Your task to perform on an android device: Show me popular videos on Youtube Image 0: 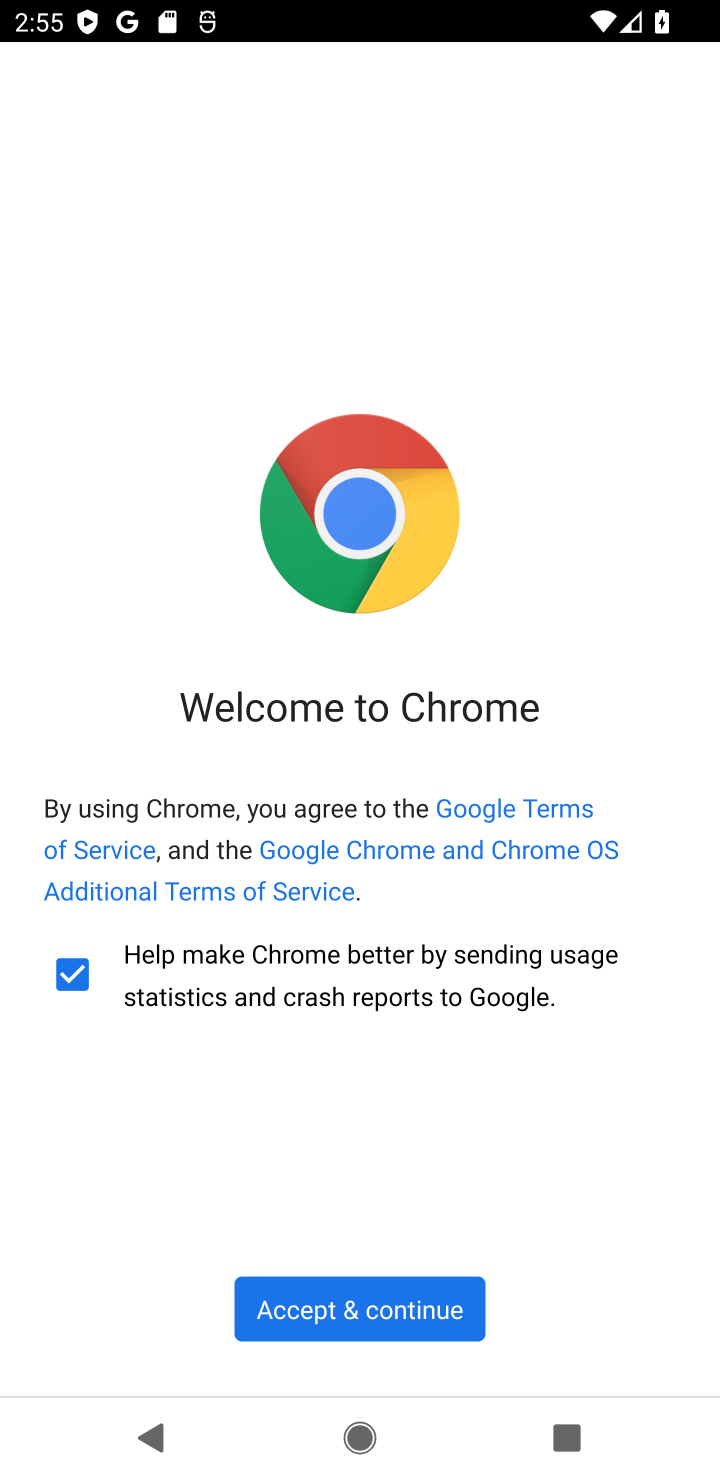
Step 0: press home button
Your task to perform on an android device: Show me popular videos on Youtube Image 1: 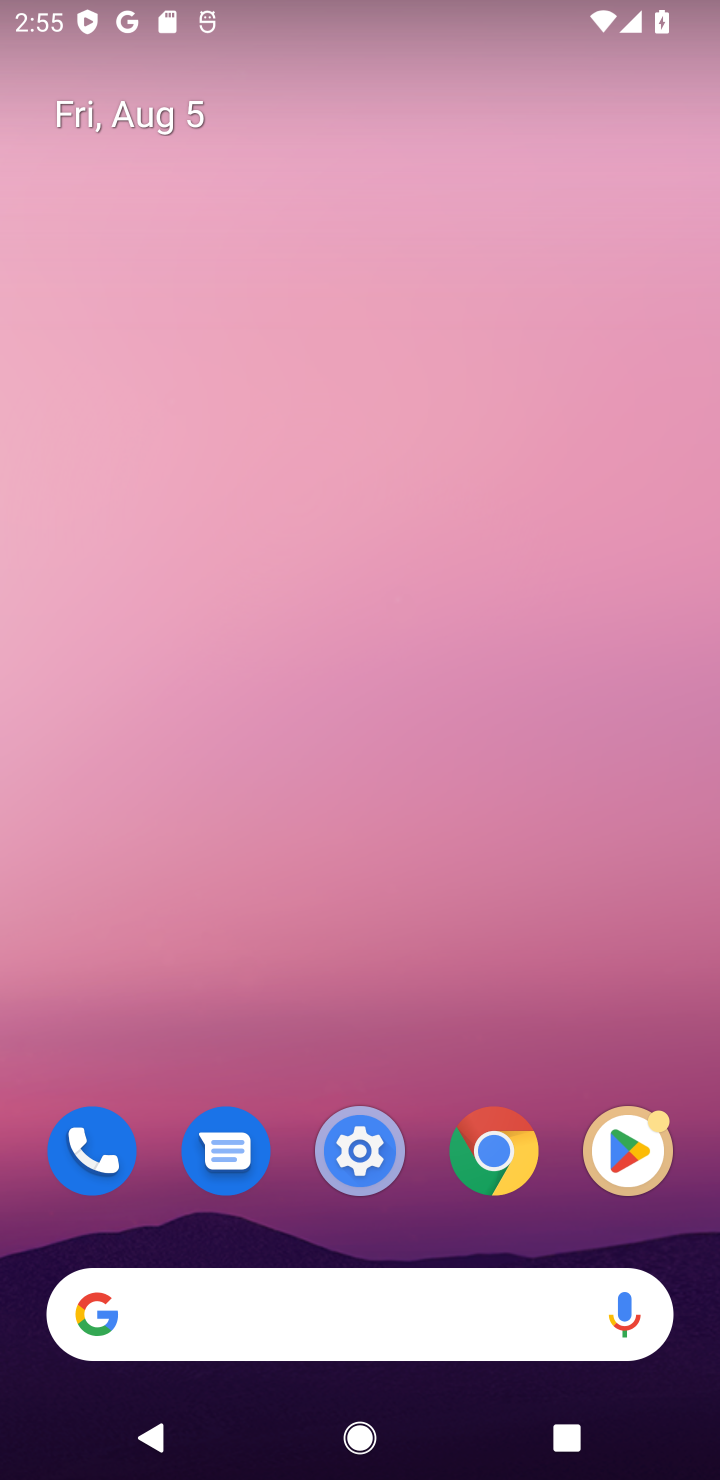
Step 1: drag from (388, 1049) to (250, 107)
Your task to perform on an android device: Show me popular videos on Youtube Image 2: 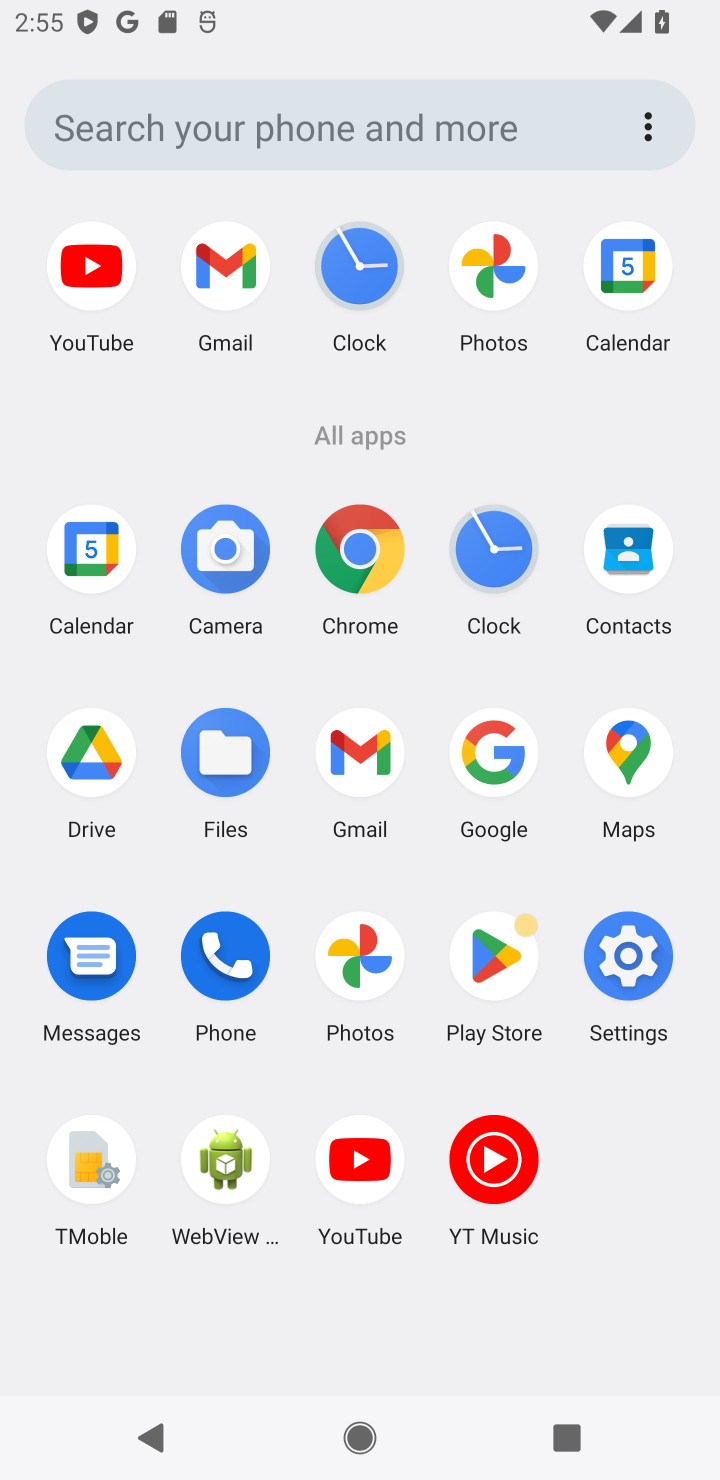
Step 2: click (329, 1178)
Your task to perform on an android device: Show me popular videos on Youtube Image 3: 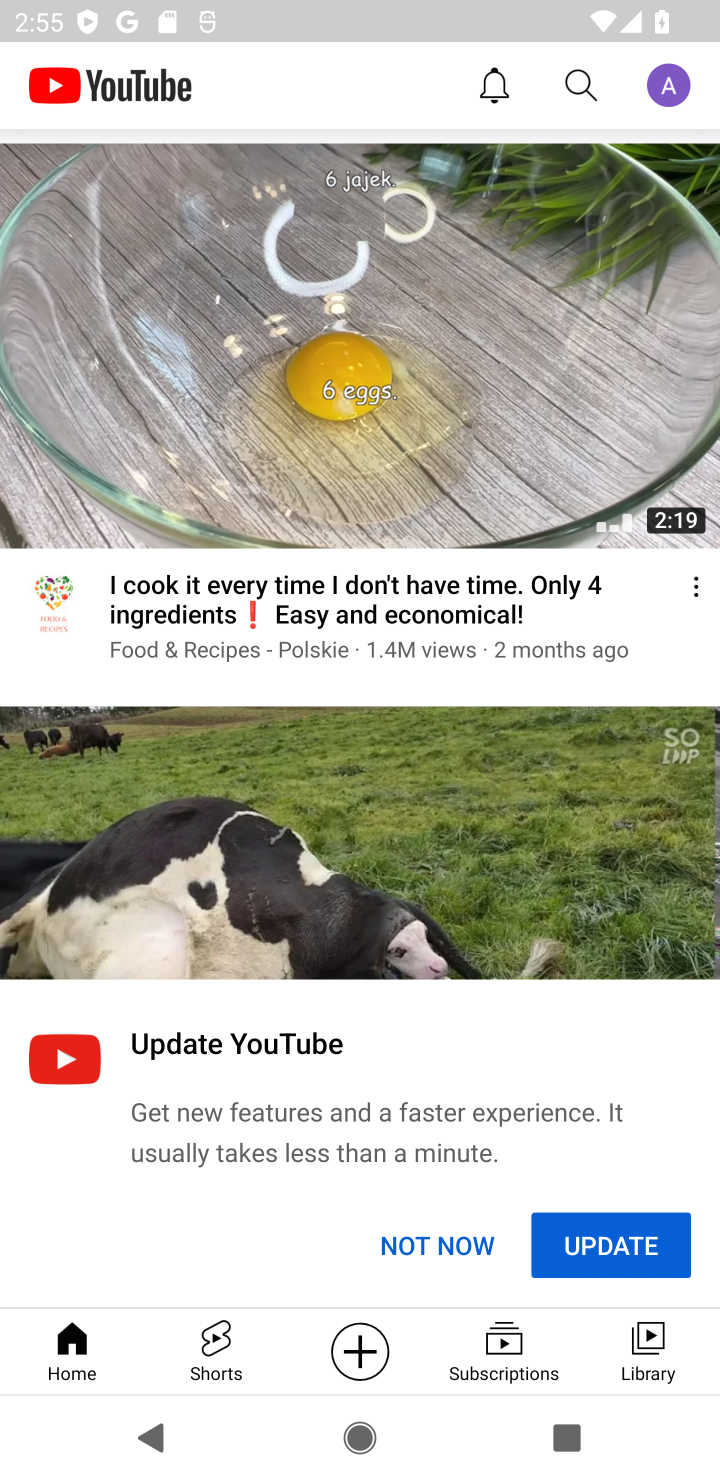
Step 3: drag from (141, 482) to (217, 1341)
Your task to perform on an android device: Show me popular videos on Youtube Image 4: 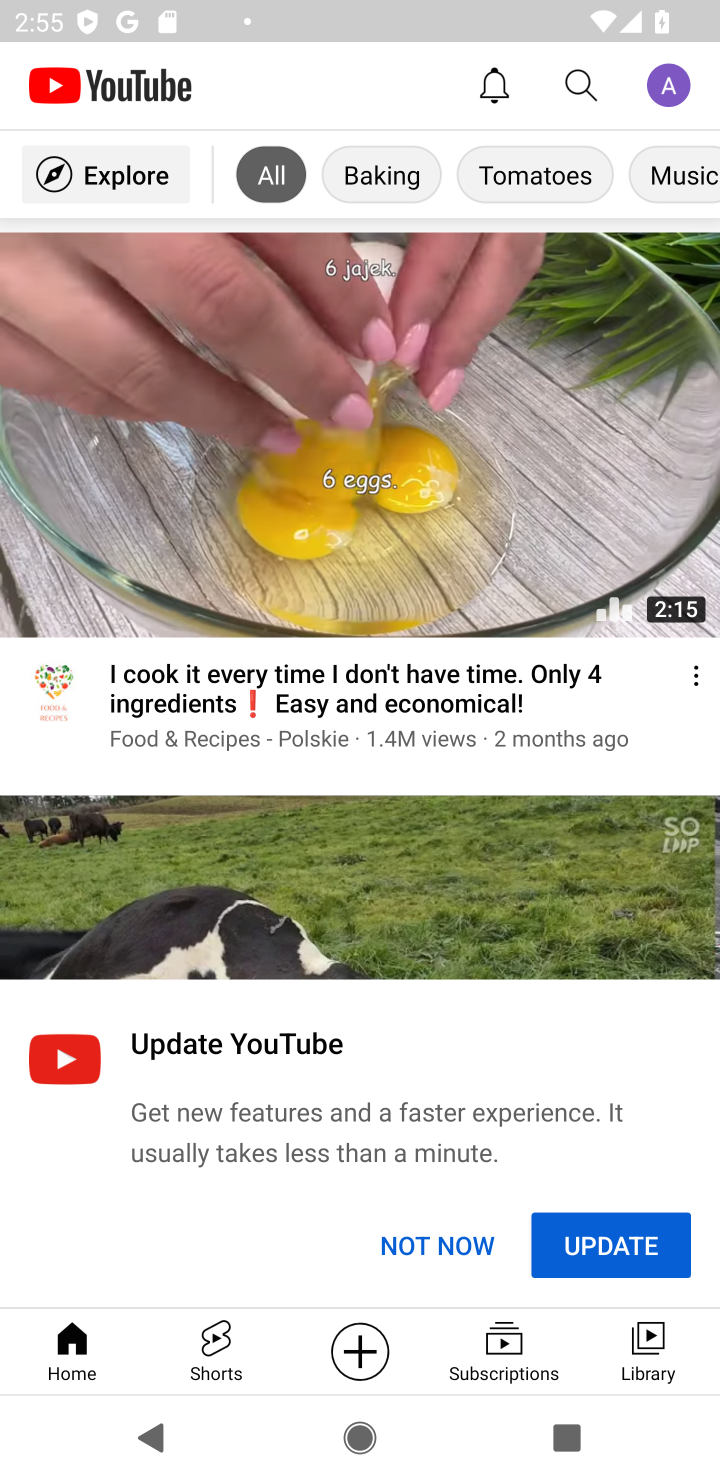
Step 4: click (101, 162)
Your task to perform on an android device: Show me popular videos on Youtube Image 5: 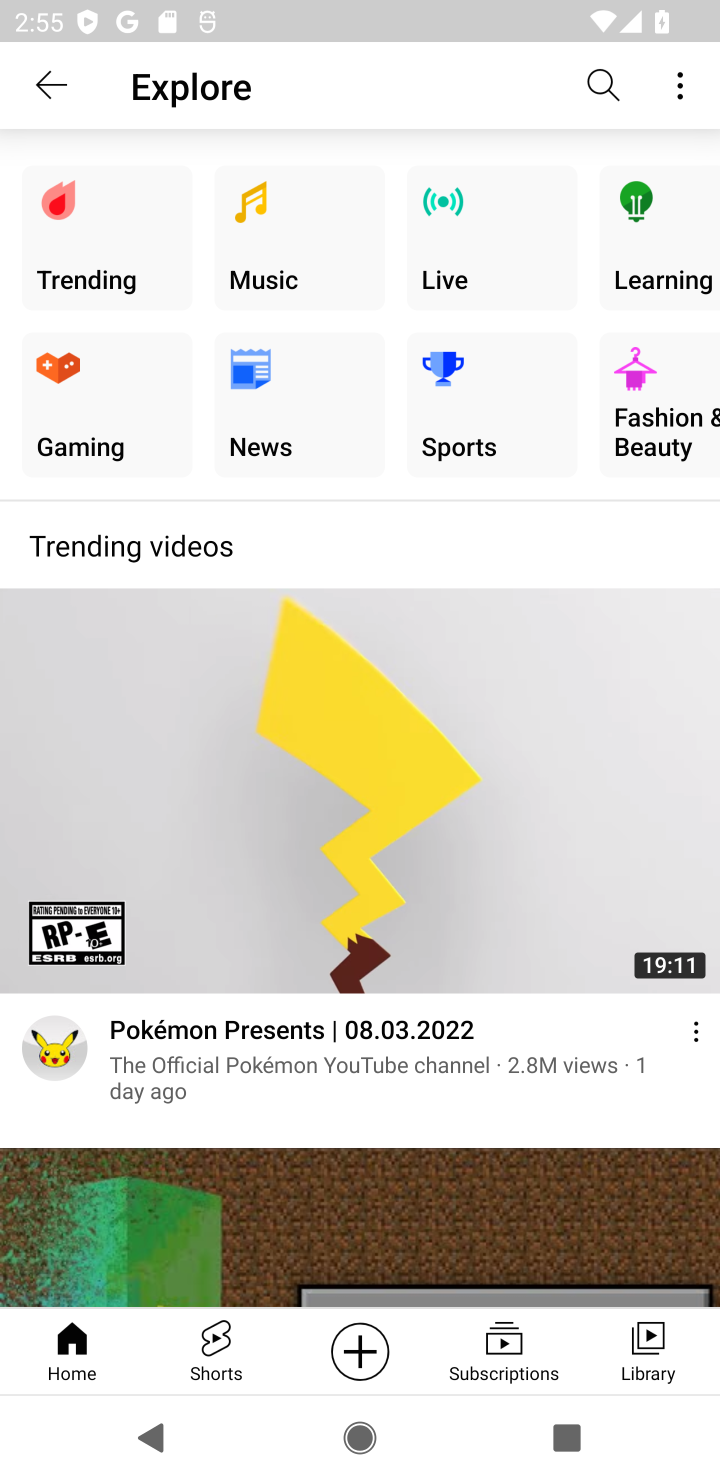
Step 5: click (101, 232)
Your task to perform on an android device: Show me popular videos on Youtube Image 6: 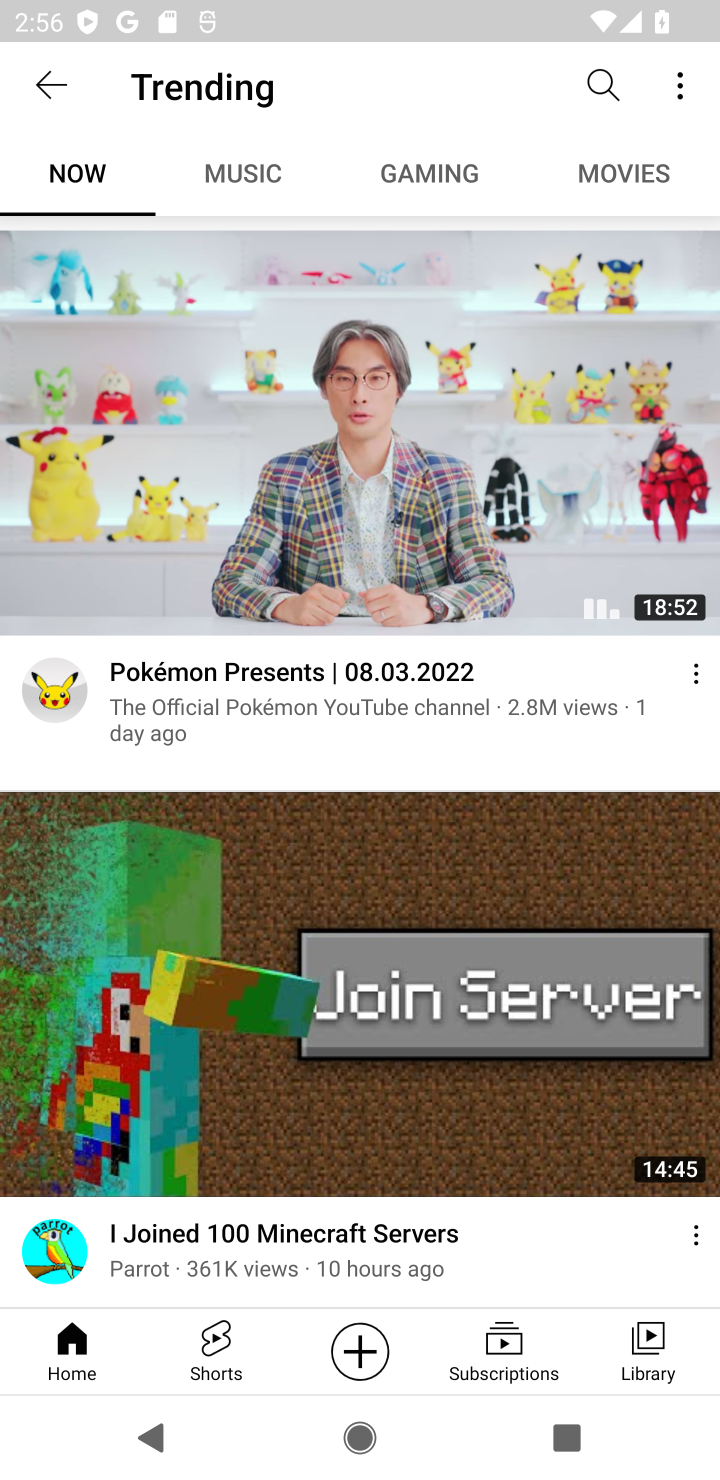
Step 6: task complete